Your task to perform on an android device: Go to accessibility settings Image 0: 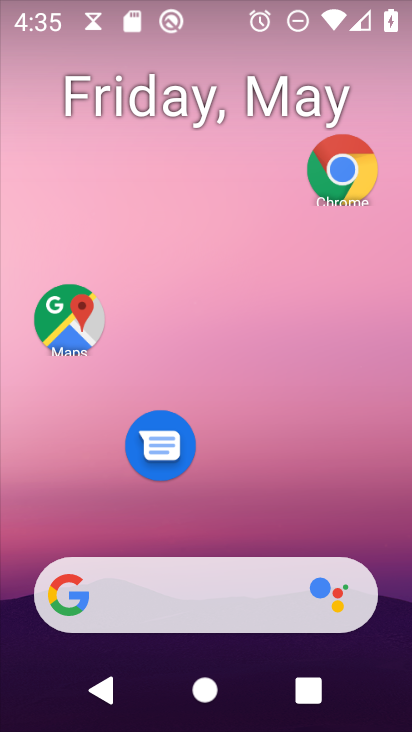
Step 0: drag from (196, 530) to (130, 1)
Your task to perform on an android device: Go to accessibility settings Image 1: 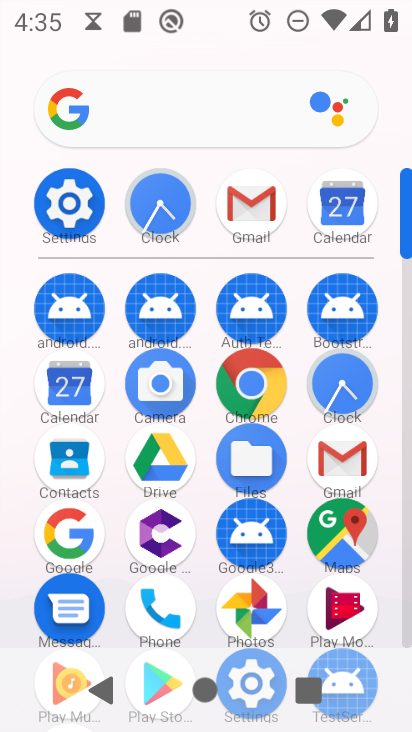
Step 1: click (64, 204)
Your task to perform on an android device: Go to accessibility settings Image 2: 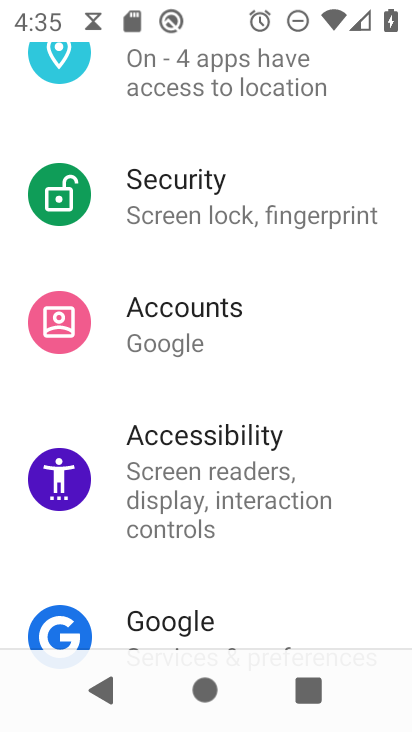
Step 2: click (215, 494)
Your task to perform on an android device: Go to accessibility settings Image 3: 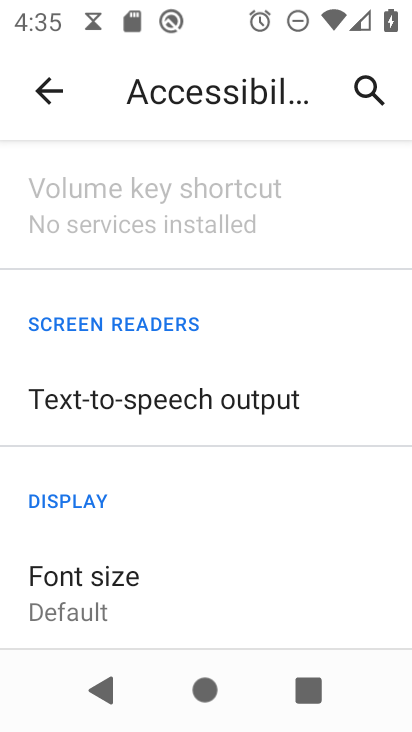
Step 3: task complete